Your task to perform on an android device: toggle notification dots Image 0: 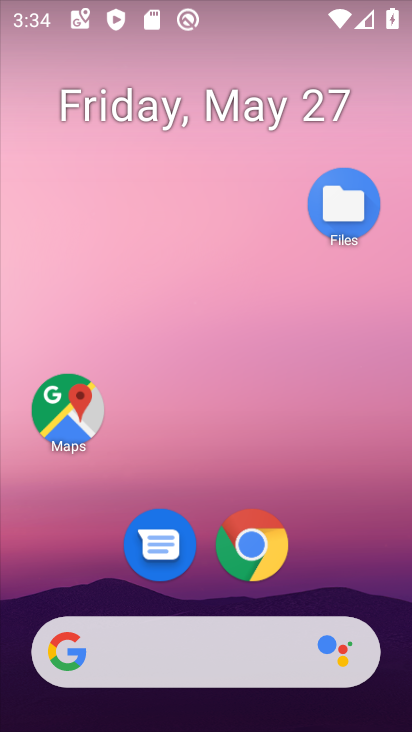
Step 0: drag from (233, 654) to (346, 141)
Your task to perform on an android device: toggle notification dots Image 1: 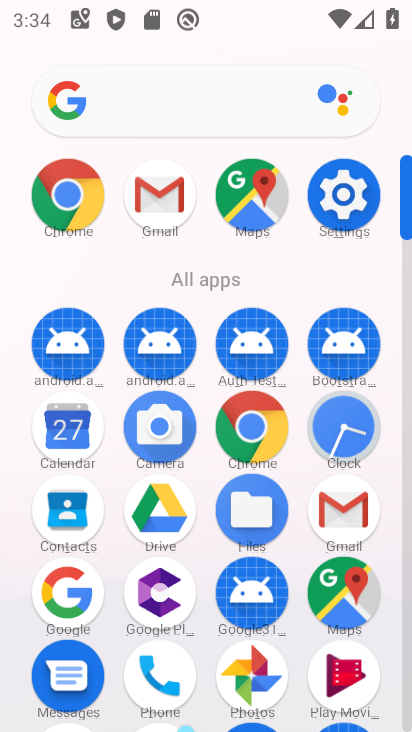
Step 1: click (341, 205)
Your task to perform on an android device: toggle notification dots Image 2: 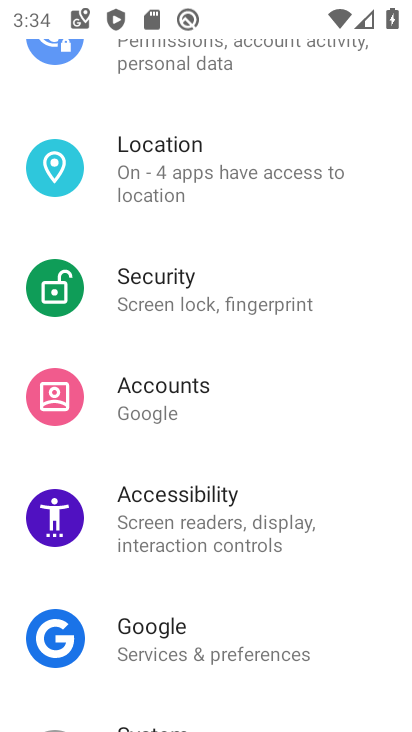
Step 2: drag from (301, 140) to (223, 612)
Your task to perform on an android device: toggle notification dots Image 3: 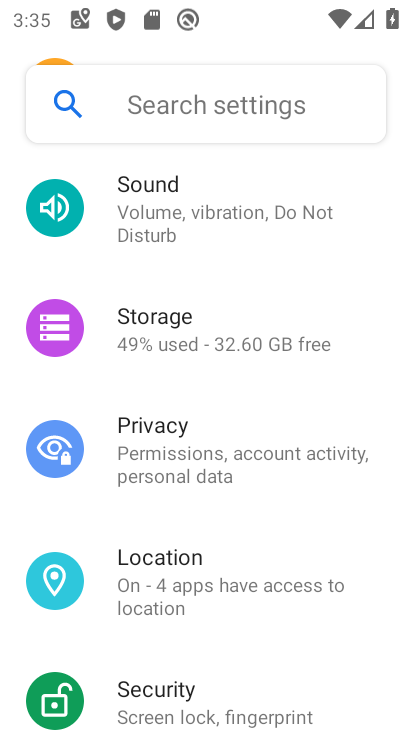
Step 3: drag from (243, 286) to (216, 644)
Your task to perform on an android device: toggle notification dots Image 4: 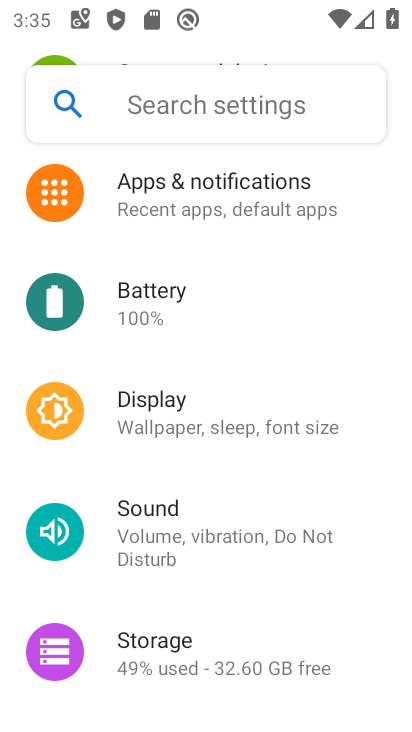
Step 4: click (259, 193)
Your task to perform on an android device: toggle notification dots Image 5: 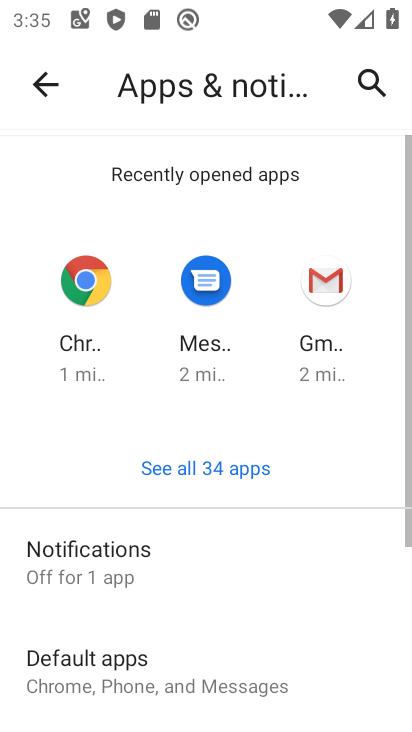
Step 5: click (99, 557)
Your task to perform on an android device: toggle notification dots Image 6: 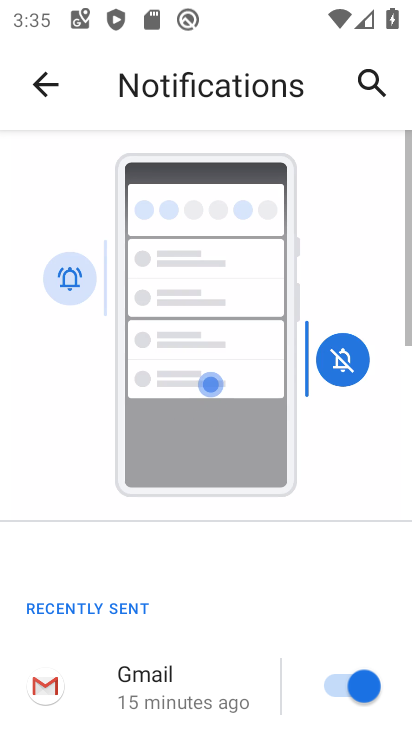
Step 6: drag from (200, 627) to (317, 147)
Your task to perform on an android device: toggle notification dots Image 7: 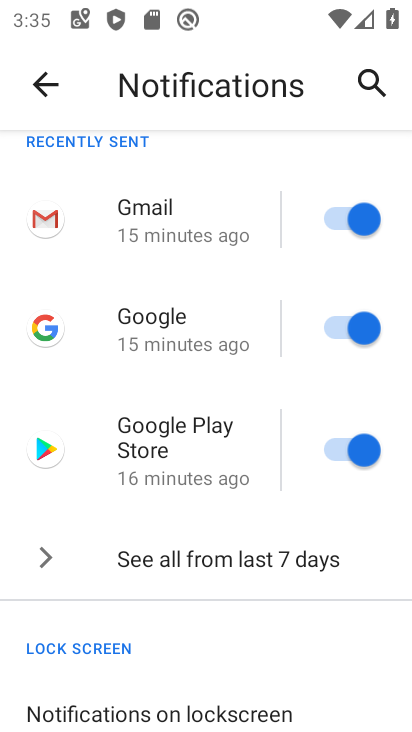
Step 7: drag from (216, 612) to (361, 195)
Your task to perform on an android device: toggle notification dots Image 8: 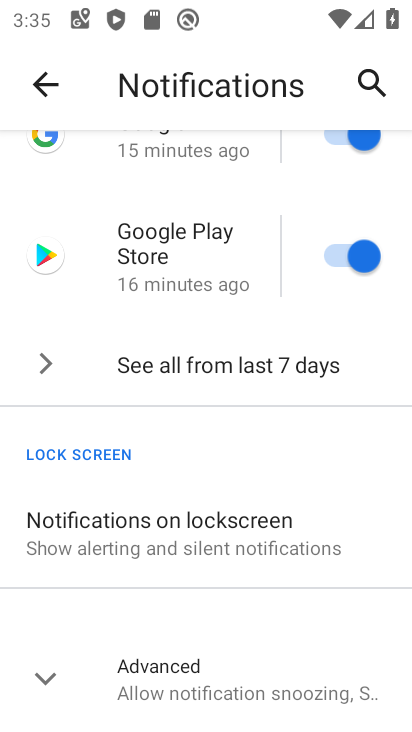
Step 8: click (178, 667)
Your task to perform on an android device: toggle notification dots Image 9: 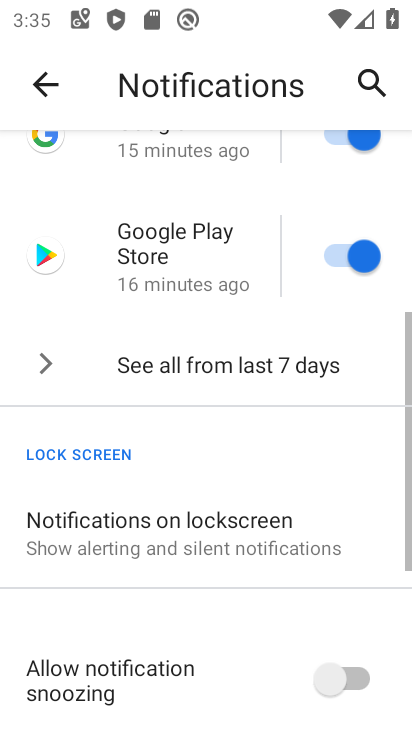
Step 9: drag from (196, 623) to (357, 174)
Your task to perform on an android device: toggle notification dots Image 10: 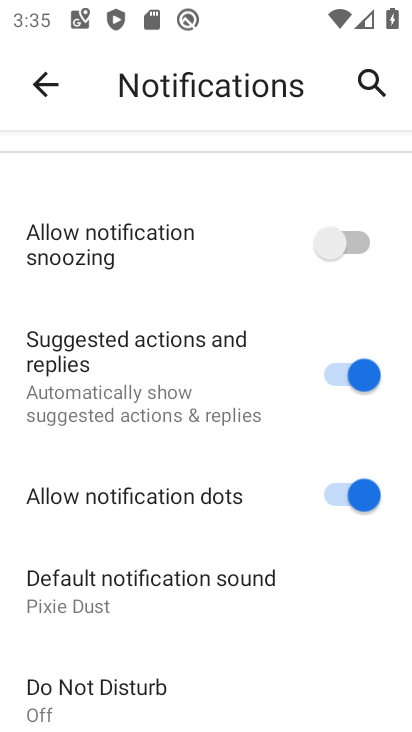
Step 10: click (337, 498)
Your task to perform on an android device: toggle notification dots Image 11: 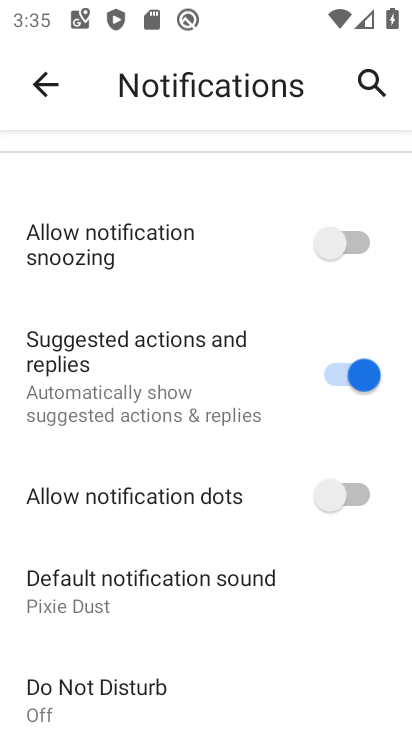
Step 11: task complete